Your task to perform on an android device: Open display settings Image 0: 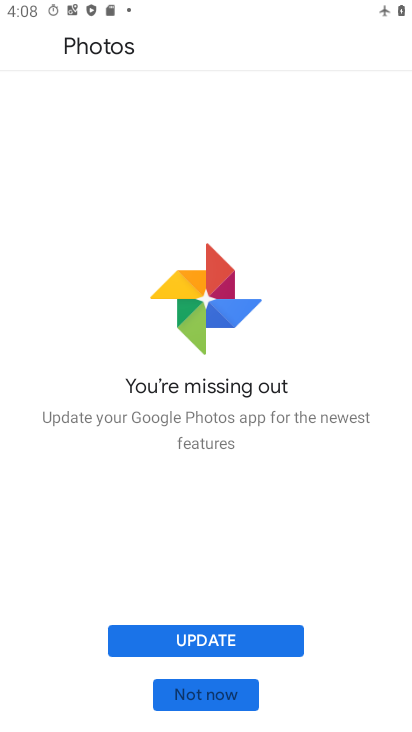
Step 0: press home button
Your task to perform on an android device: Open display settings Image 1: 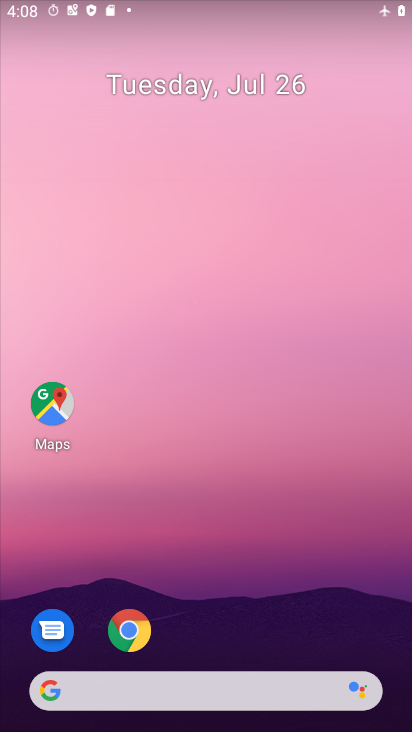
Step 1: drag from (233, 644) to (185, 151)
Your task to perform on an android device: Open display settings Image 2: 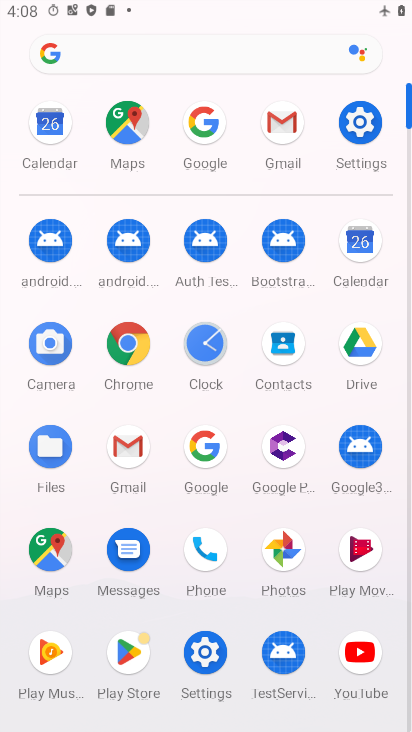
Step 2: click (370, 126)
Your task to perform on an android device: Open display settings Image 3: 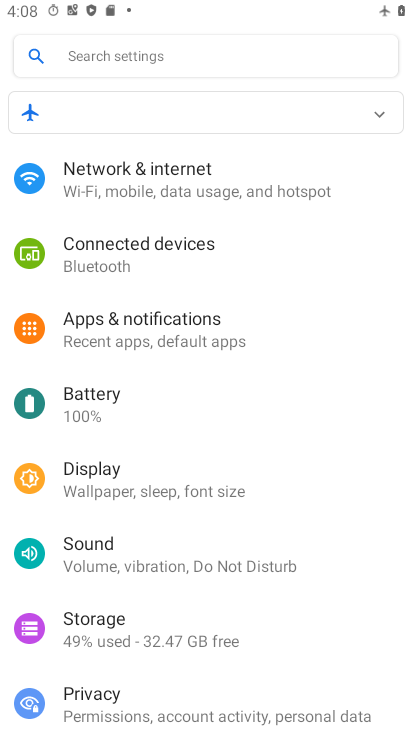
Step 3: click (226, 486)
Your task to perform on an android device: Open display settings Image 4: 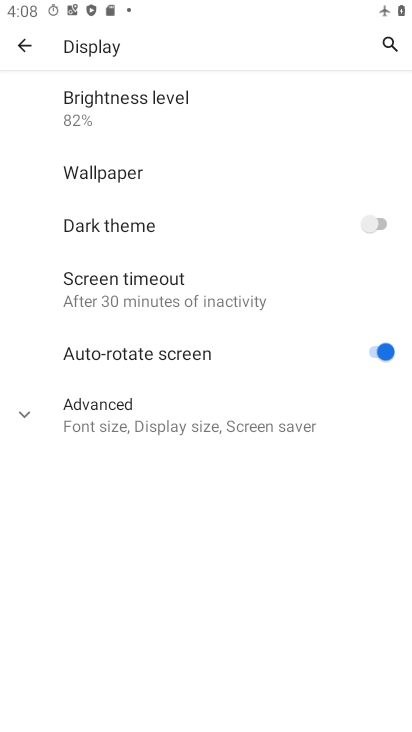
Step 4: task complete